Your task to perform on an android device: open a bookmark in the chrome app Image 0: 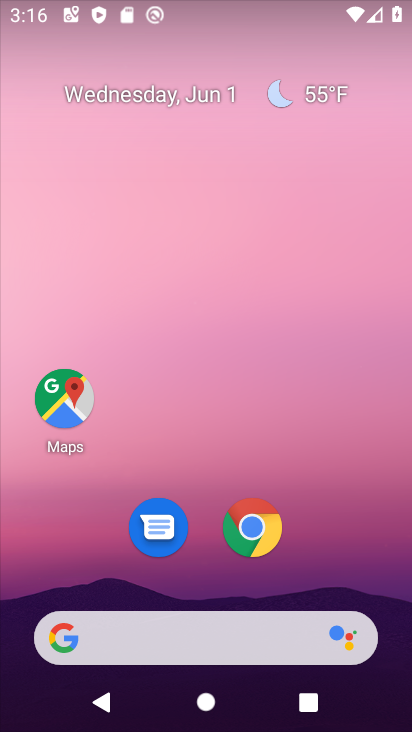
Step 0: press home button
Your task to perform on an android device: open a bookmark in the chrome app Image 1: 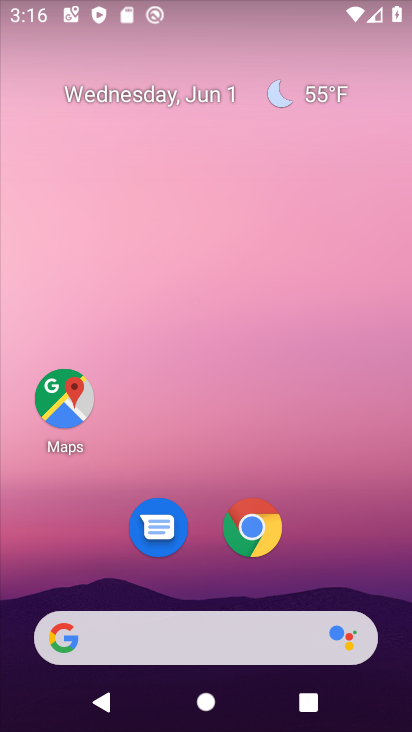
Step 1: drag from (364, 499) to (342, 235)
Your task to perform on an android device: open a bookmark in the chrome app Image 2: 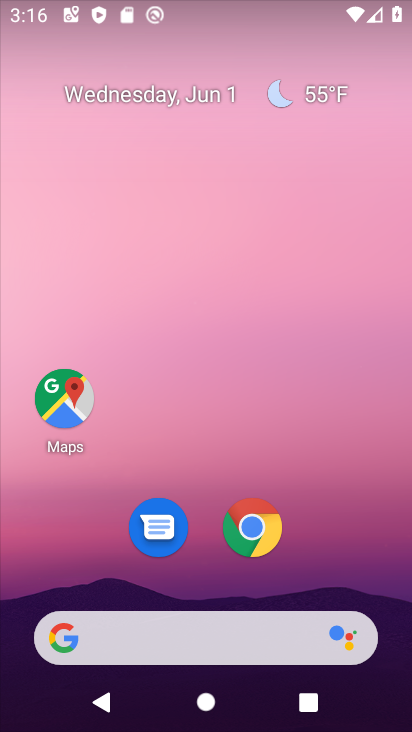
Step 2: drag from (394, 626) to (353, 360)
Your task to perform on an android device: open a bookmark in the chrome app Image 3: 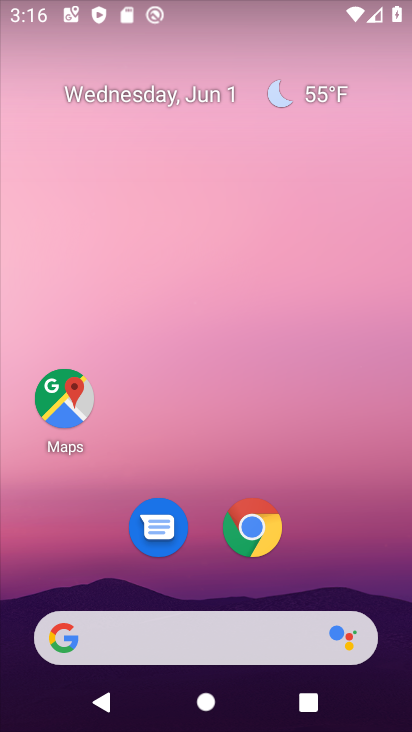
Step 3: drag from (318, 151) to (306, 56)
Your task to perform on an android device: open a bookmark in the chrome app Image 4: 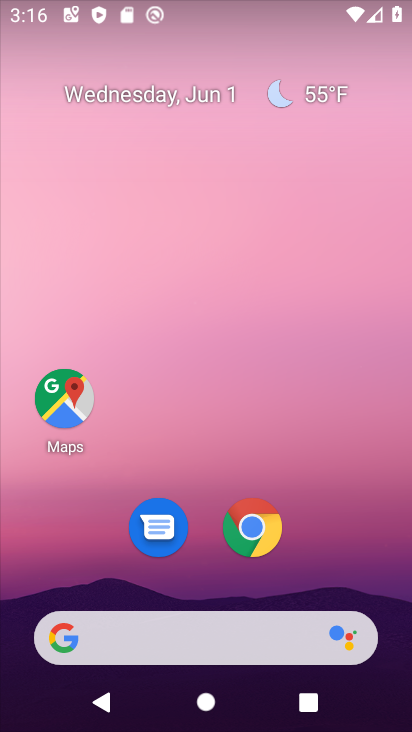
Step 4: drag from (394, 620) to (327, 103)
Your task to perform on an android device: open a bookmark in the chrome app Image 5: 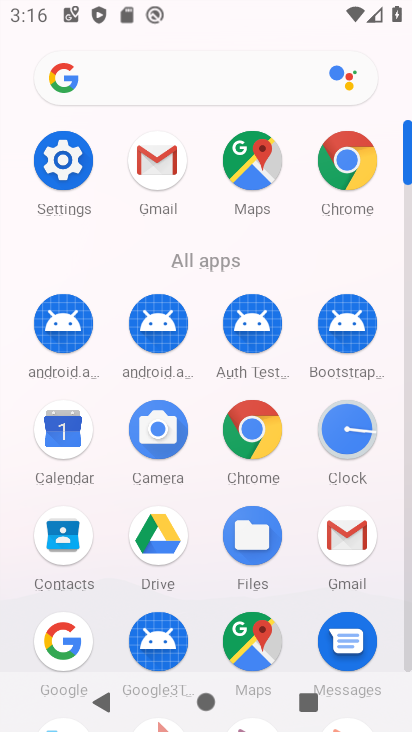
Step 5: click (365, 180)
Your task to perform on an android device: open a bookmark in the chrome app Image 6: 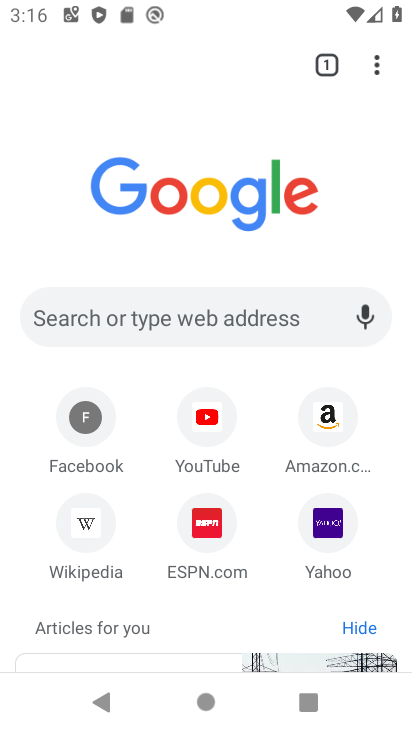
Step 6: click (232, 315)
Your task to perform on an android device: open a bookmark in the chrome app Image 7: 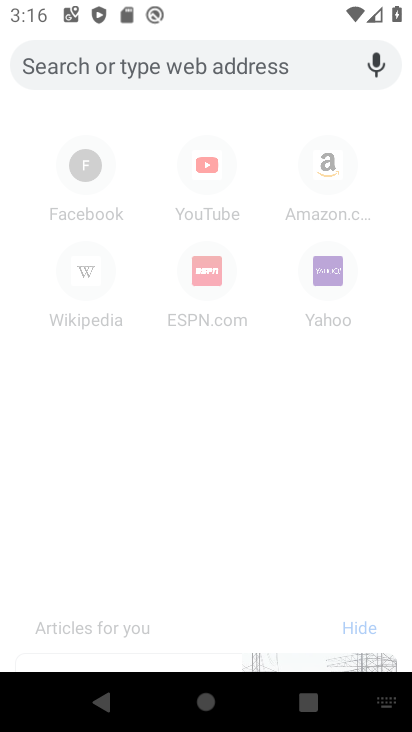
Step 7: click (205, 237)
Your task to perform on an android device: open a bookmark in the chrome app Image 8: 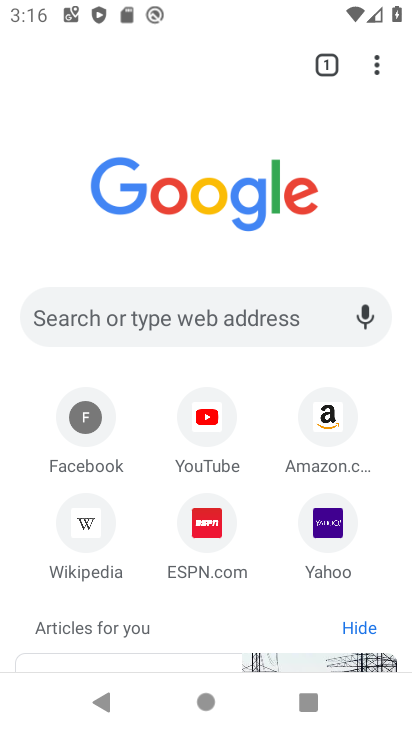
Step 8: task complete